Your task to perform on an android device: refresh tabs in the chrome app Image 0: 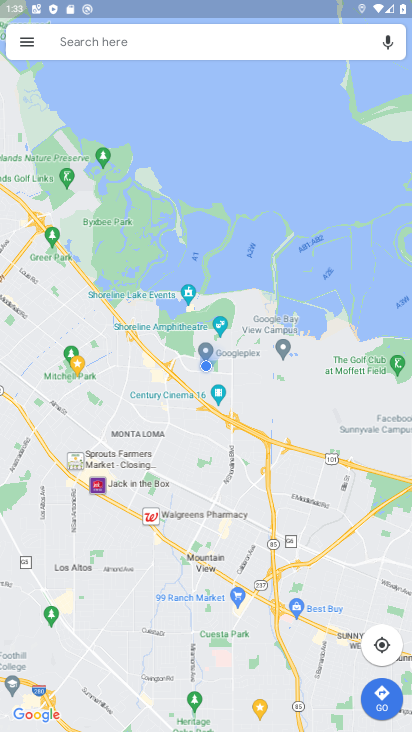
Step 0: press back button
Your task to perform on an android device: refresh tabs in the chrome app Image 1: 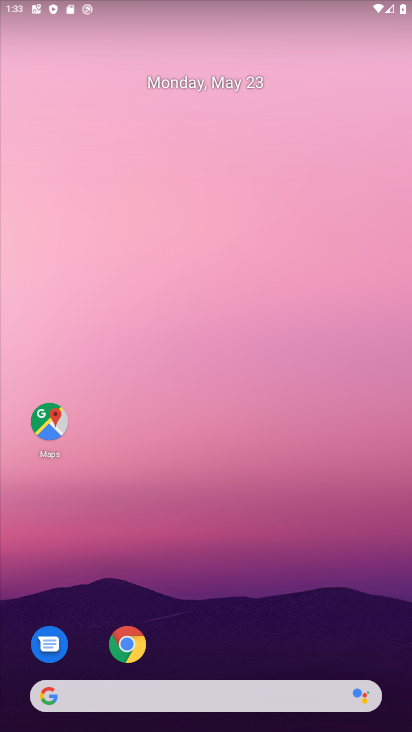
Step 1: drag from (239, 510) to (186, 0)
Your task to perform on an android device: refresh tabs in the chrome app Image 2: 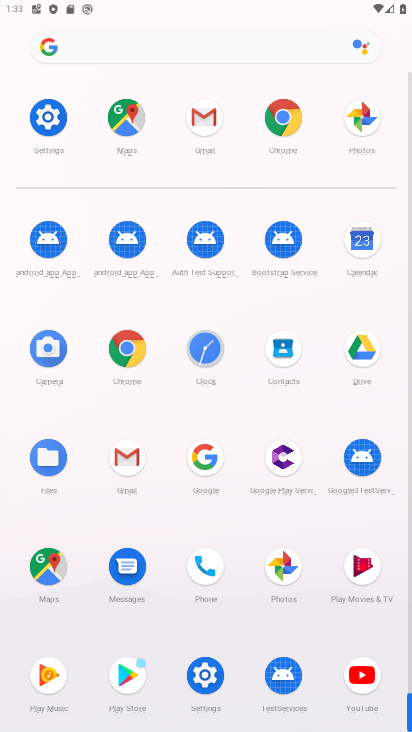
Step 2: click (127, 348)
Your task to perform on an android device: refresh tabs in the chrome app Image 3: 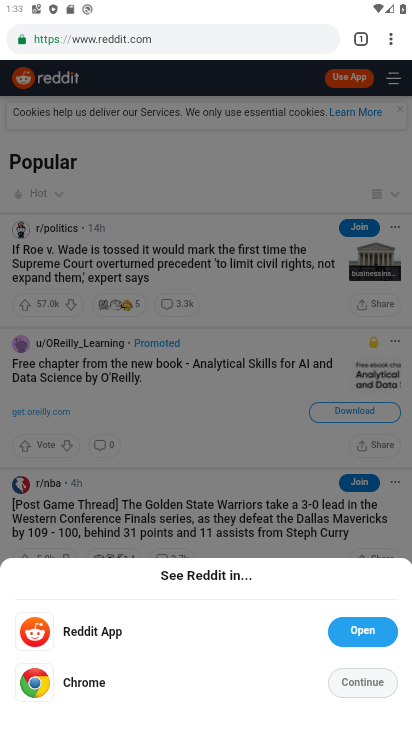
Step 3: click (388, 36)
Your task to perform on an android device: refresh tabs in the chrome app Image 4: 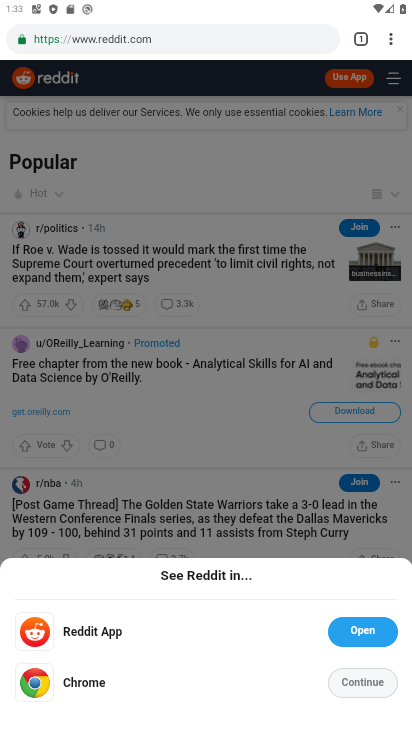
Step 4: task complete